Your task to perform on an android device: Open calendar and show me the second week of next month Image 0: 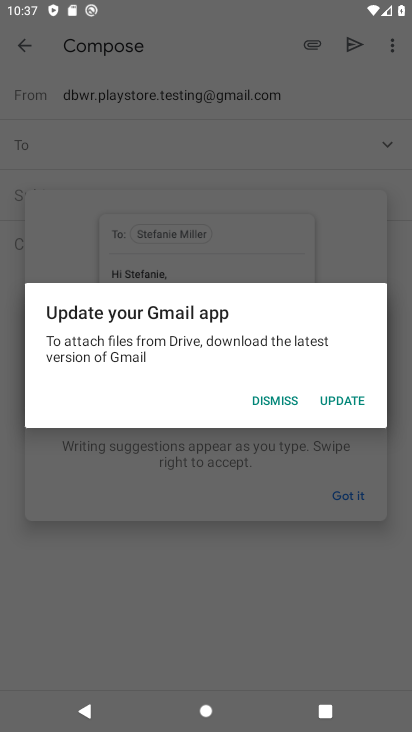
Step 0: press home button
Your task to perform on an android device: Open calendar and show me the second week of next month Image 1: 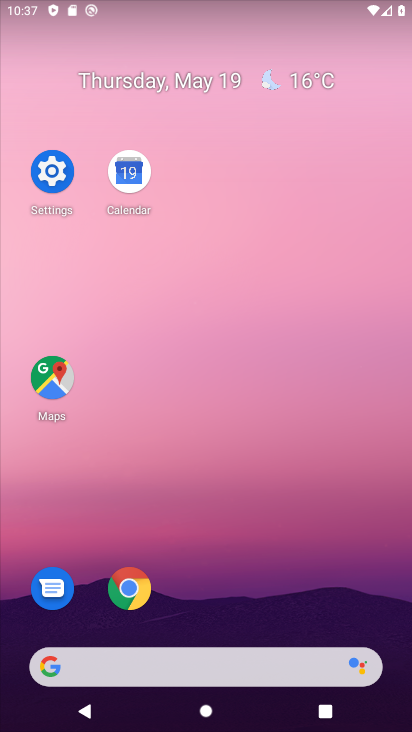
Step 1: click (141, 167)
Your task to perform on an android device: Open calendar and show me the second week of next month Image 2: 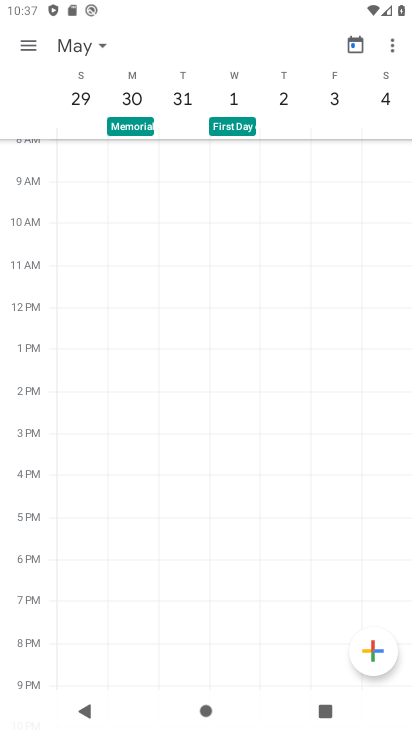
Step 2: click (76, 46)
Your task to perform on an android device: Open calendar and show me the second week of next month Image 3: 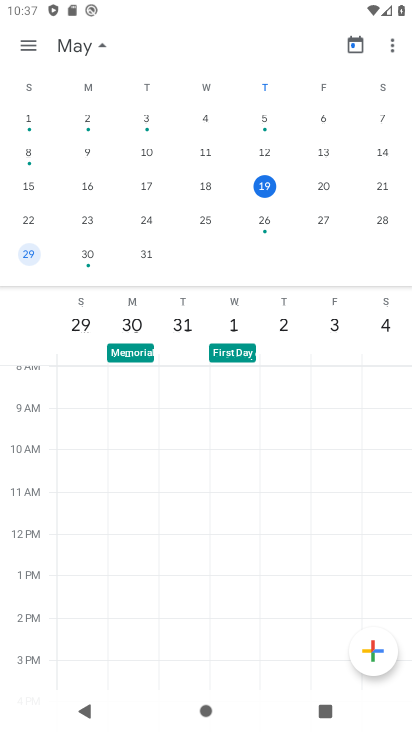
Step 3: drag from (391, 184) to (7, 222)
Your task to perform on an android device: Open calendar and show me the second week of next month Image 4: 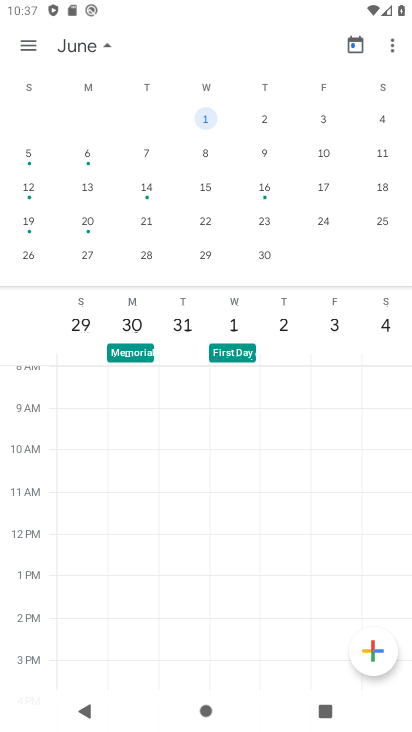
Step 4: click (33, 53)
Your task to perform on an android device: Open calendar and show me the second week of next month Image 5: 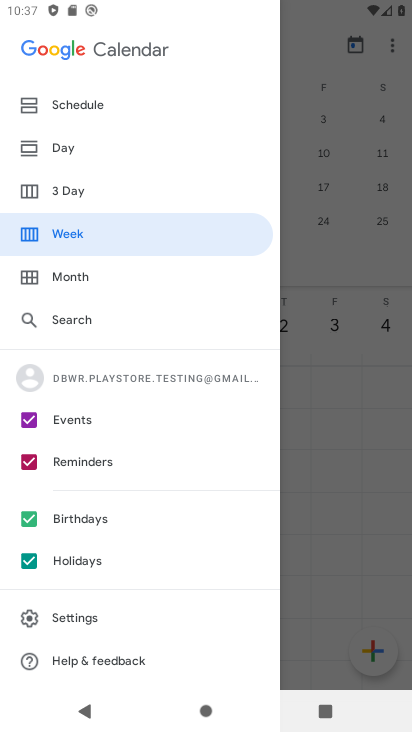
Step 5: click (60, 240)
Your task to perform on an android device: Open calendar and show me the second week of next month Image 6: 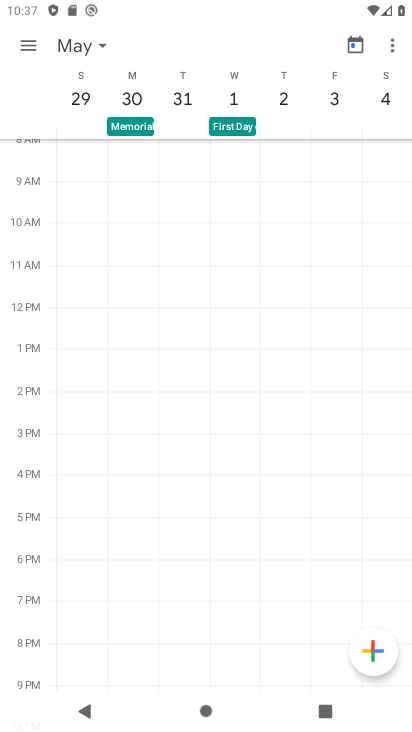
Step 6: task complete